Your task to perform on an android device: see creations saved in the google photos Image 0: 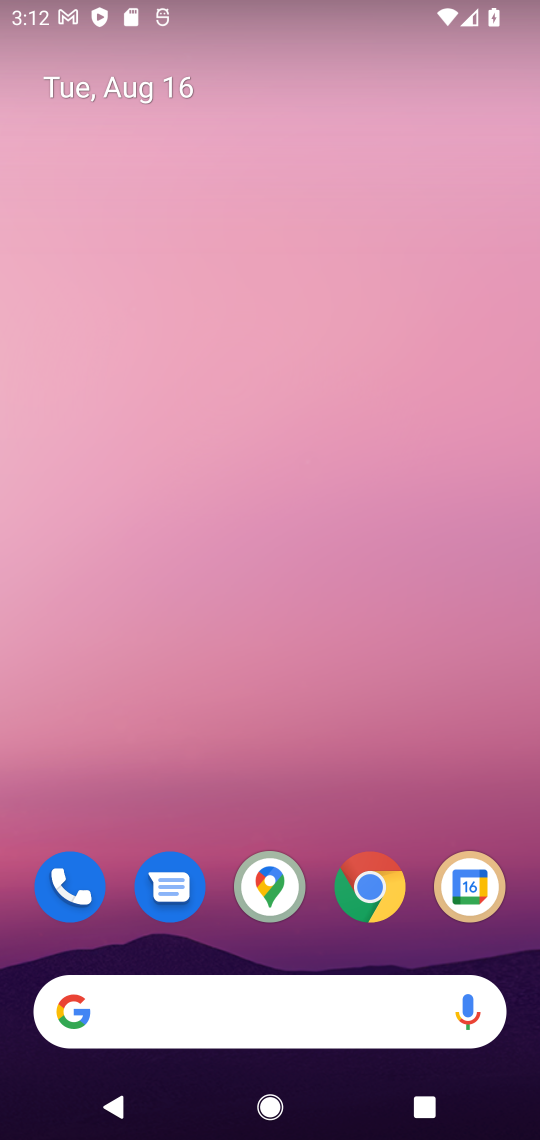
Step 0: drag from (246, 734) to (280, 110)
Your task to perform on an android device: see creations saved in the google photos Image 1: 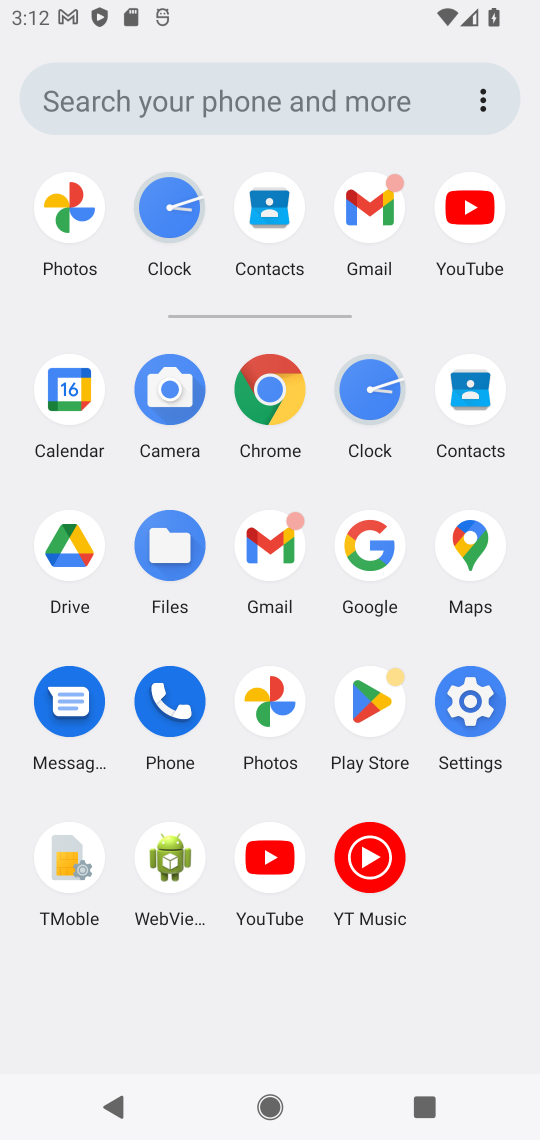
Step 1: click (272, 690)
Your task to perform on an android device: see creations saved in the google photos Image 2: 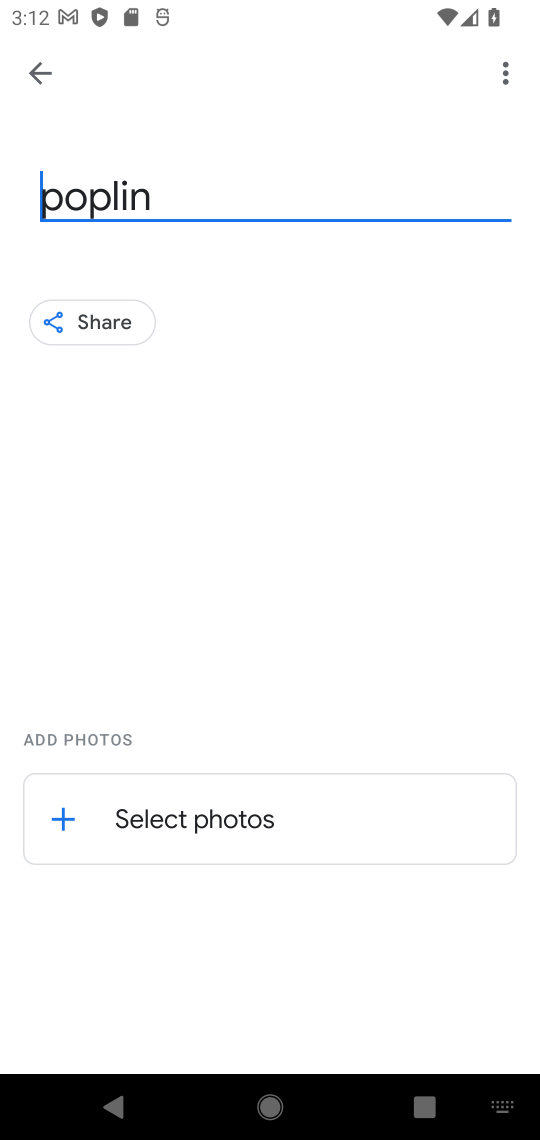
Step 2: click (26, 70)
Your task to perform on an android device: see creations saved in the google photos Image 3: 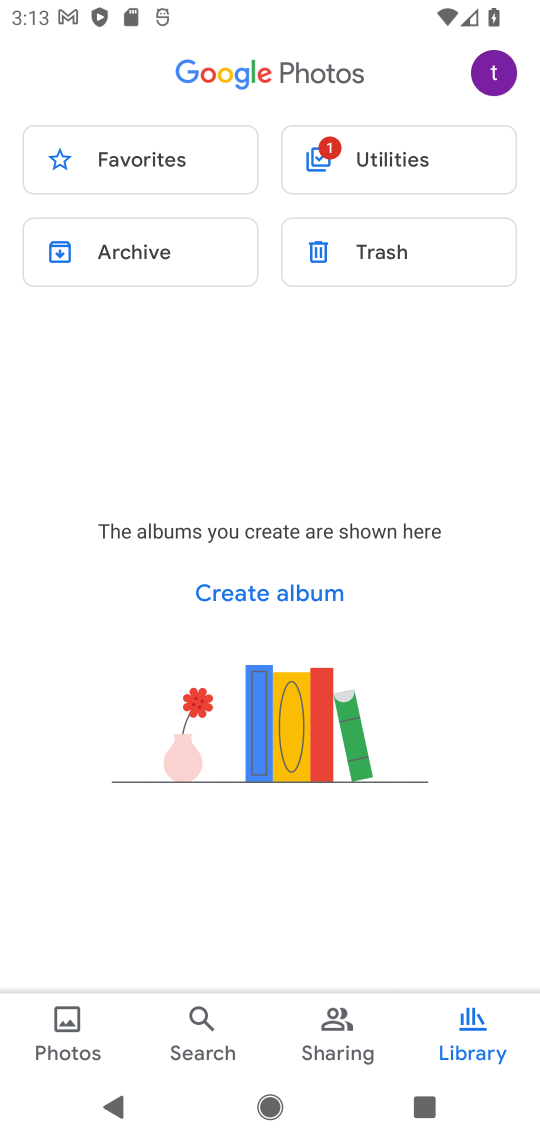
Step 3: task complete